Your task to perform on an android device: turn off improve location accuracy Image 0: 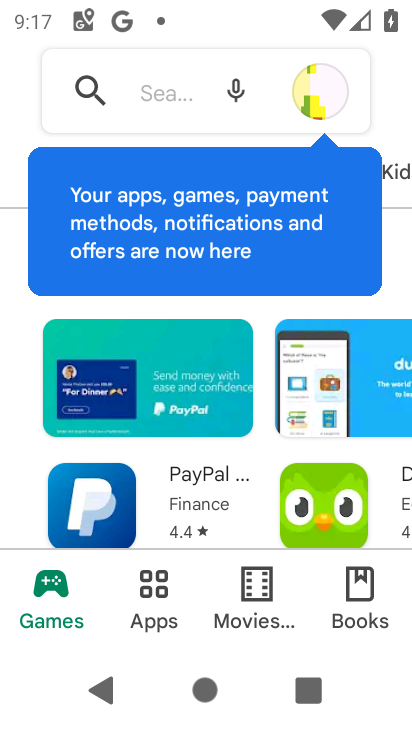
Step 0: press home button
Your task to perform on an android device: turn off improve location accuracy Image 1: 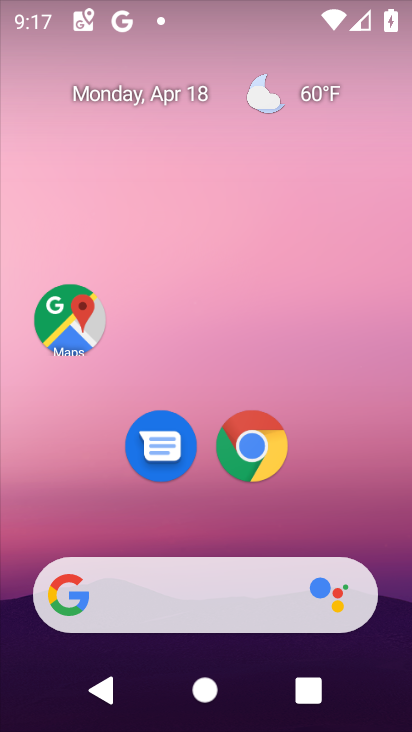
Step 1: drag from (394, 569) to (379, 146)
Your task to perform on an android device: turn off improve location accuracy Image 2: 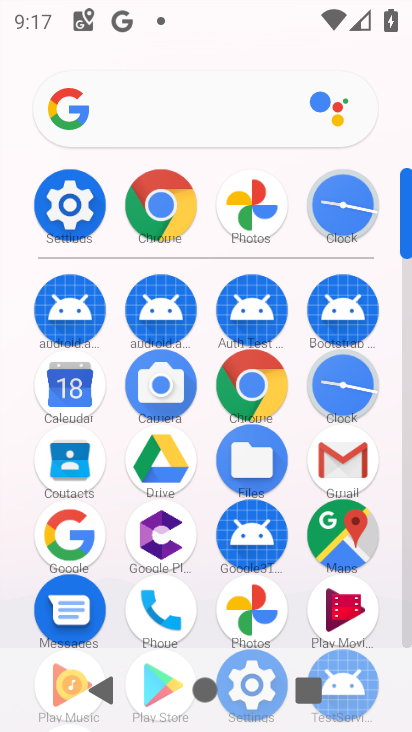
Step 2: drag from (390, 534) to (381, 287)
Your task to perform on an android device: turn off improve location accuracy Image 3: 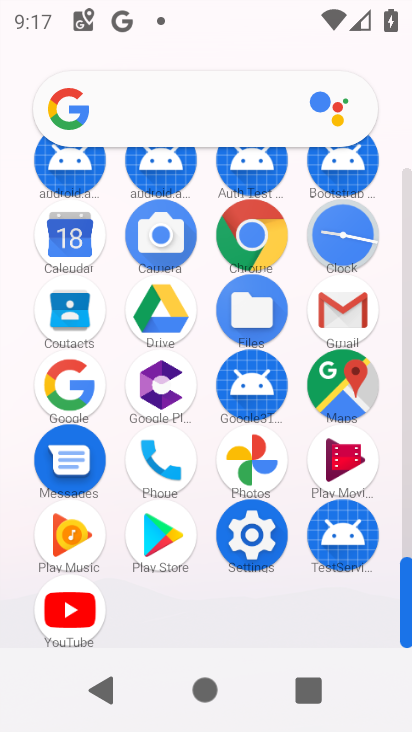
Step 3: click (263, 551)
Your task to perform on an android device: turn off improve location accuracy Image 4: 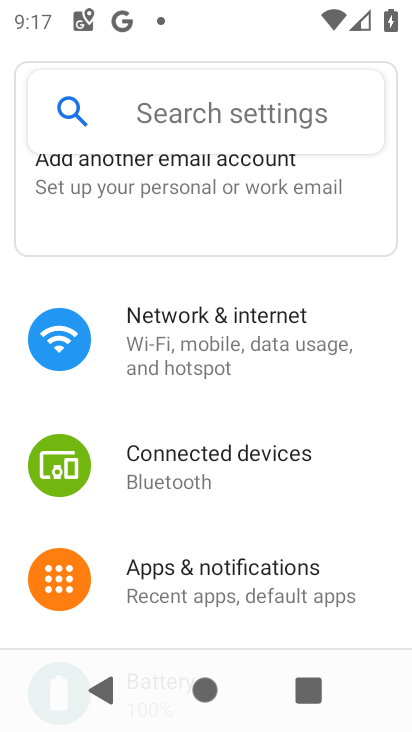
Step 4: drag from (381, 610) to (373, 383)
Your task to perform on an android device: turn off improve location accuracy Image 5: 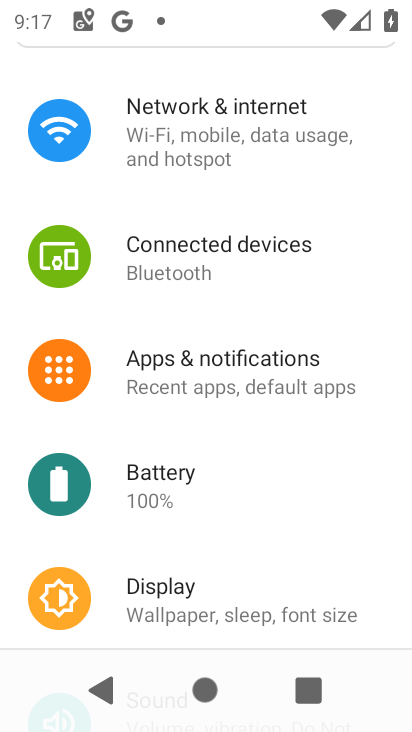
Step 5: drag from (380, 597) to (379, 376)
Your task to perform on an android device: turn off improve location accuracy Image 6: 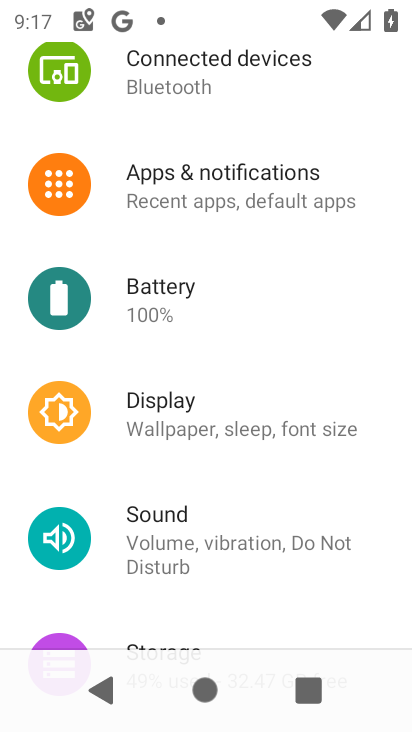
Step 6: drag from (372, 595) to (373, 381)
Your task to perform on an android device: turn off improve location accuracy Image 7: 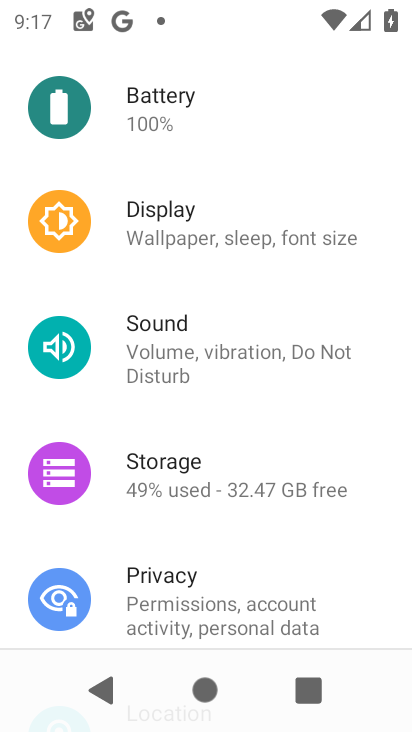
Step 7: drag from (372, 584) to (366, 343)
Your task to perform on an android device: turn off improve location accuracy Image 8: 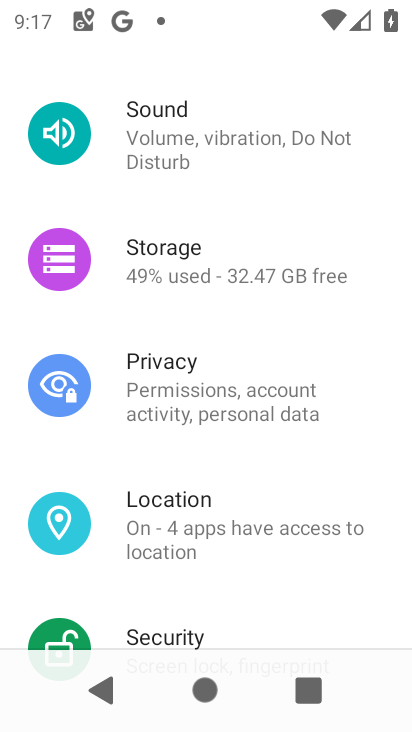
Step 8: drag from (379, 600) to (379, 394)
Your task to perform on an android device: turn off improve location accuracy Image 9: 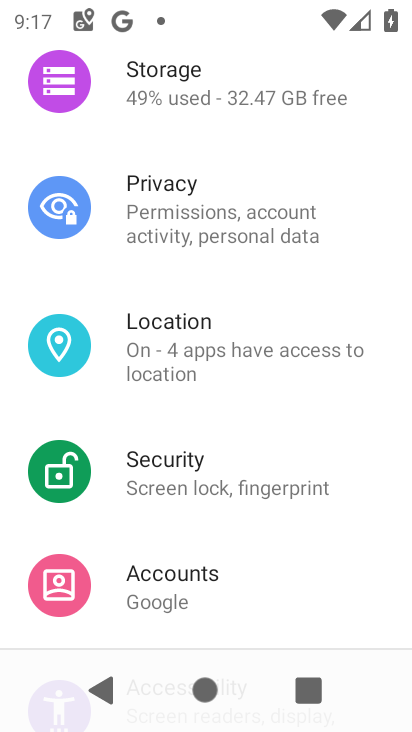
Step 9: click (205, 339)
Your task to perform on an android device: turn off improve location accuracy Image 10: 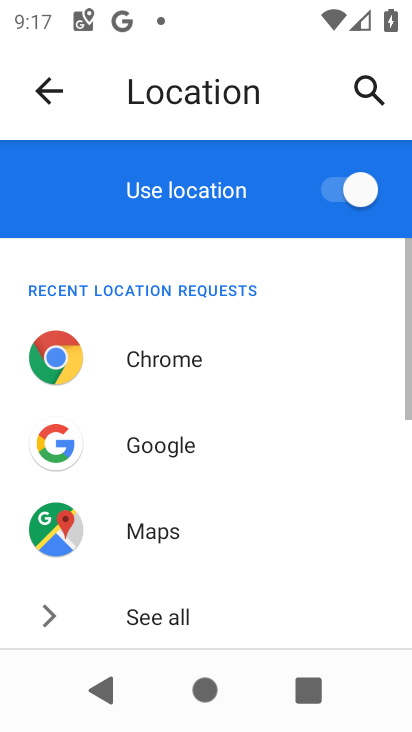
Step 10: drag from (374, 577) to (370, 379)
Your task to perform on an android device: turn off improve location accuracy Image 11: 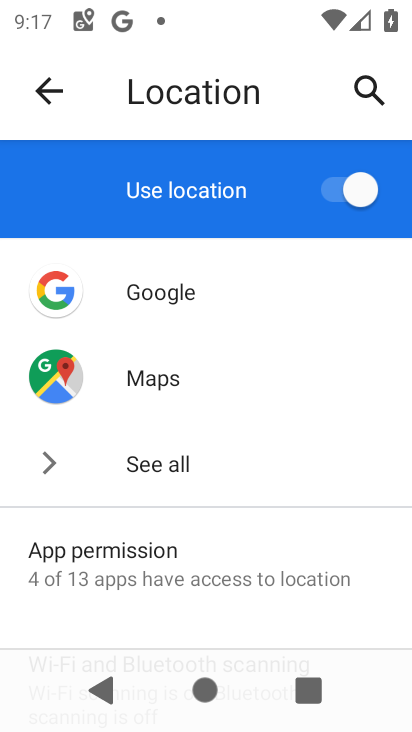
Step 11: drag from (374, 603) to (364, 323)
Your task to perform on an android device: turn off improve location accuracy Image 12: 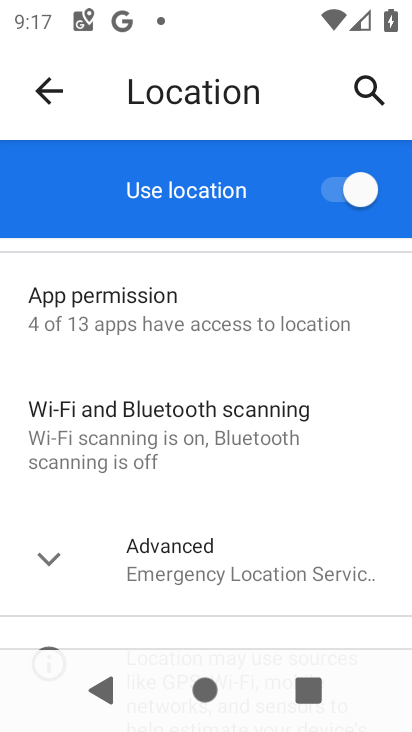
Step 12: click (315, 570)
Your task to perform on an android device: turn off improve location accuracy Image 13: 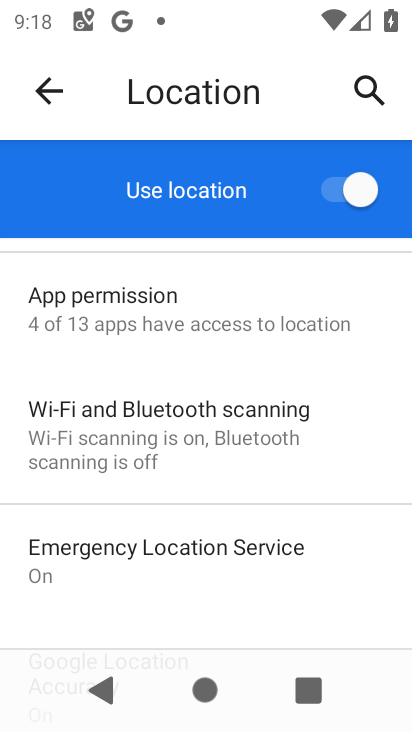
Step 13: drag from (385, 590) to (370, 396)
Your task to perform on an android device: turn off improve location accuracy Image 14: 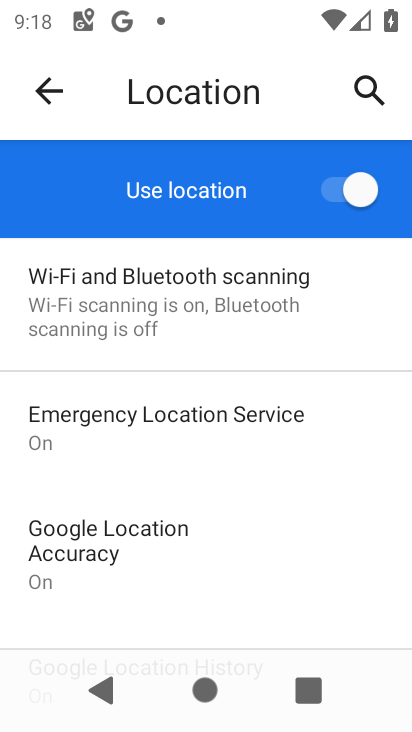
Step 14: drag from (362, 579) to (370, 379)
Your task to perform on an android device: turn off improve location accuracy Image 15: 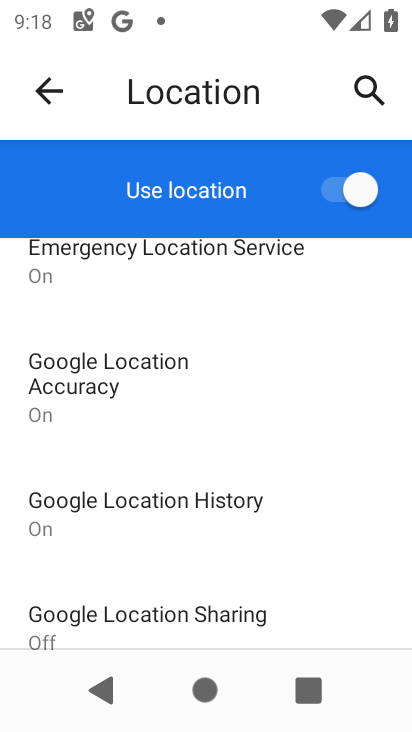
Step 15: click (87, 383)
Your task to perform on an android device: turn off improve location accuracy Image 16: 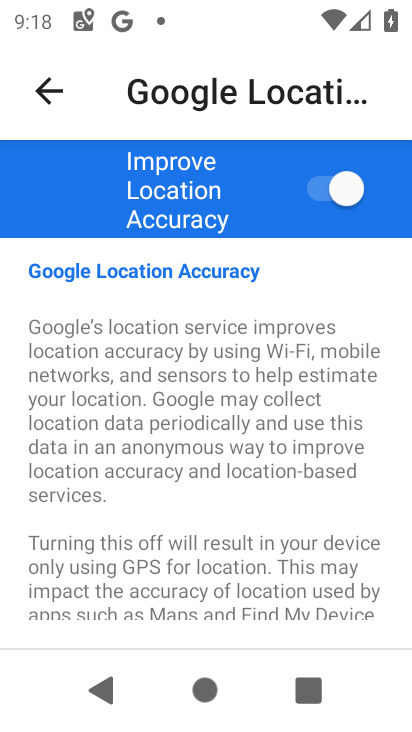
Step 16: click (340, 186)
Your task to perform on an android device: turn off improve location accuracy Image 17: 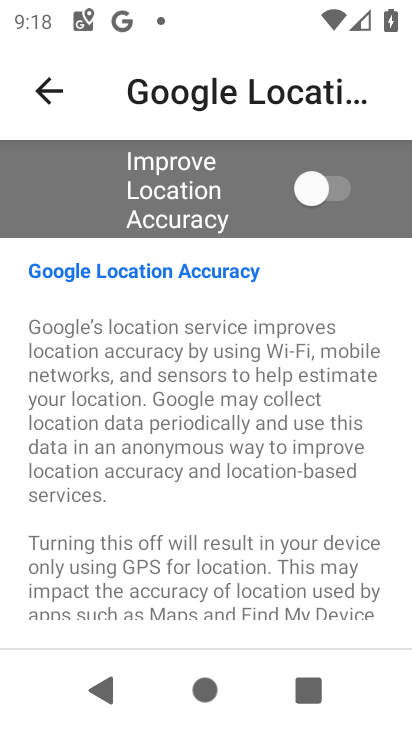
Step 17: task complete